Your task to perform on an android device: Open Chrome and go to the settings page Image 0: 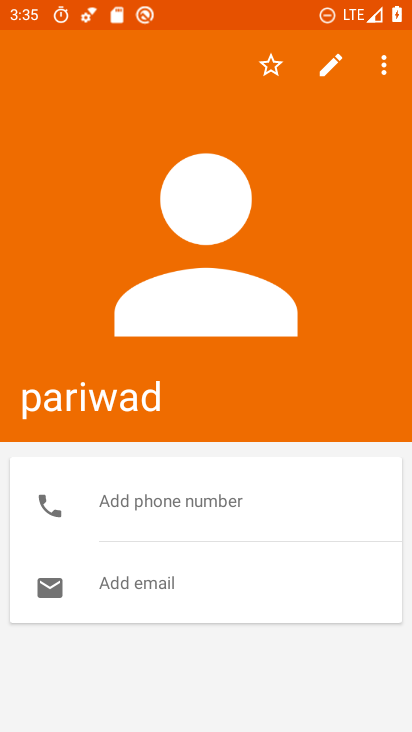
Step 0: press home button
Your task to perform on an android device: Open Chrome and go to the settings page Image 1: 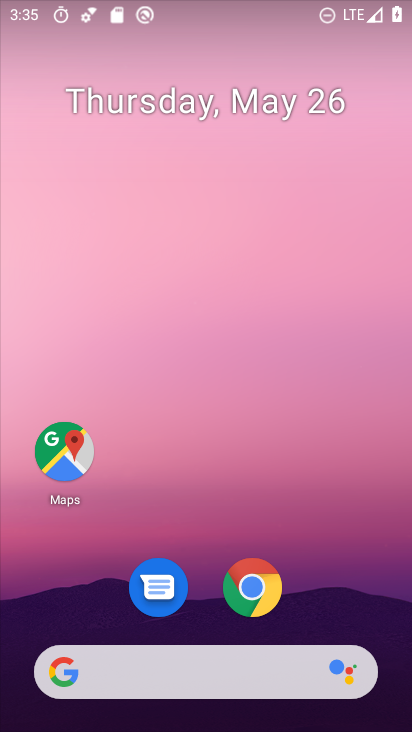
Step 1: click (254, 584)
Your task to perform on an android device: Open Chrome and go to the settings page Image 2: 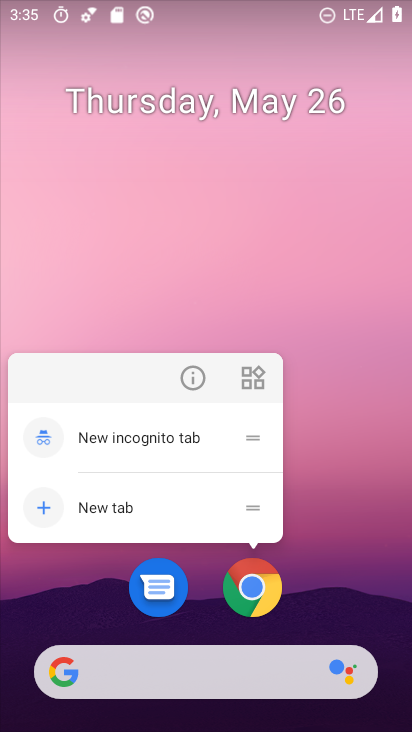
Step 2: click (251, 588)
Your task to perform on an android device: Open Chrome and go to the settings page Image 3: 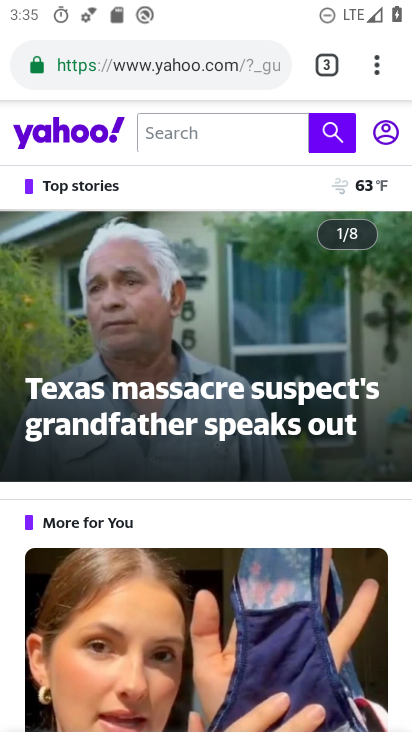
Step 3: task complete